Your task to perform on an android device: Find coffee shops on Maps Image 0: 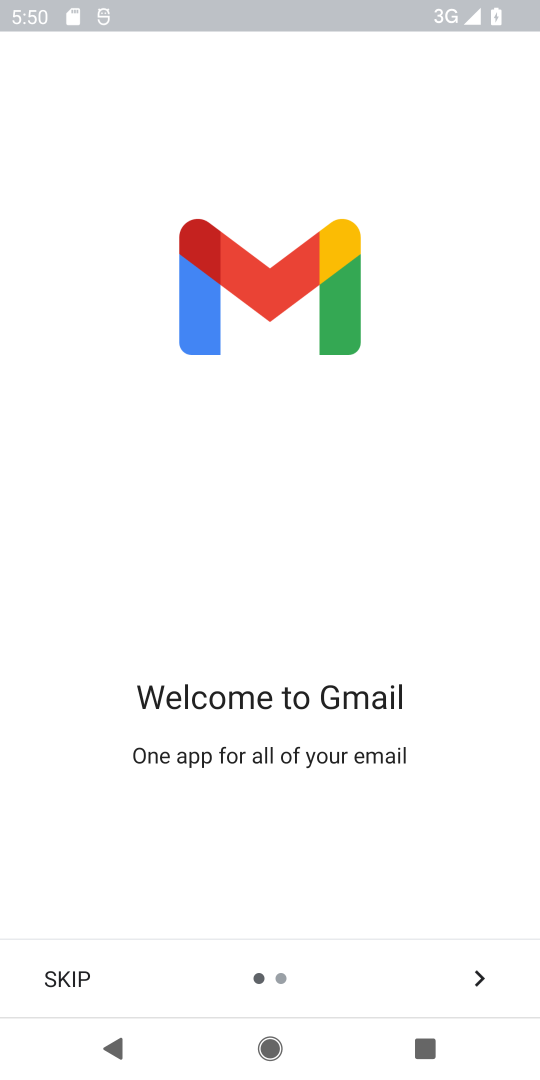
Step 0: press home button
Your task to perform on an android device: Find coffee shops on Maps Image 1: 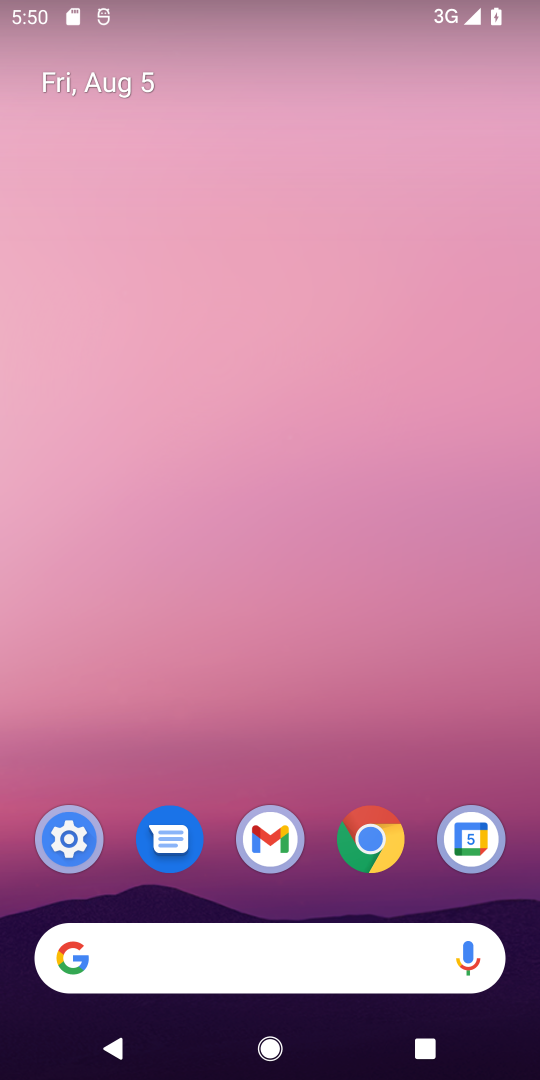
Step 1: drag from (263, 735) to (267, 202)
Your task to perform on an android device: Find coffee shops on Maps Image 2: 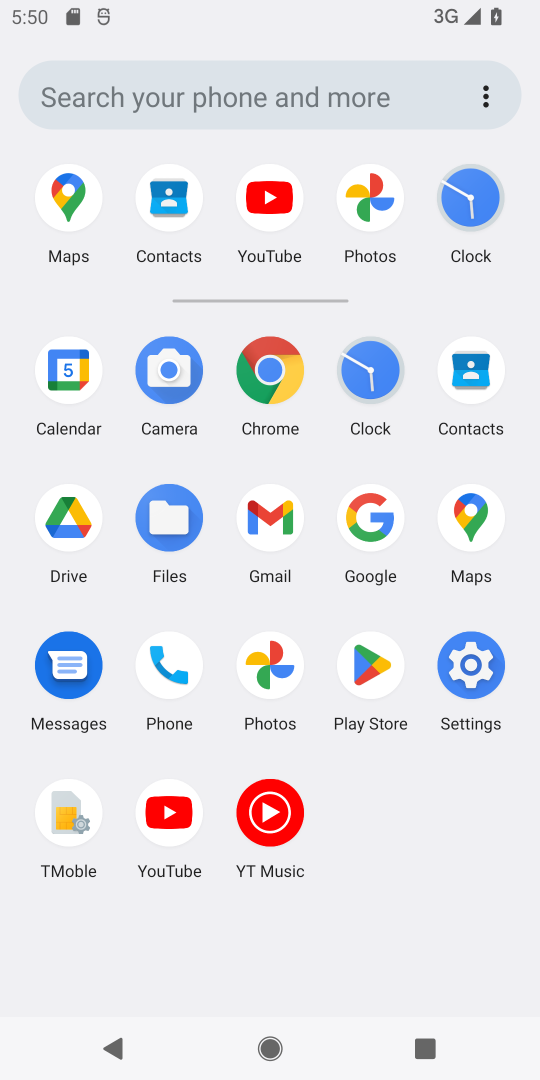
Step 2: click (457, 544)
Your task to perform on an android device: Find coffee shops on Maps Image 3: 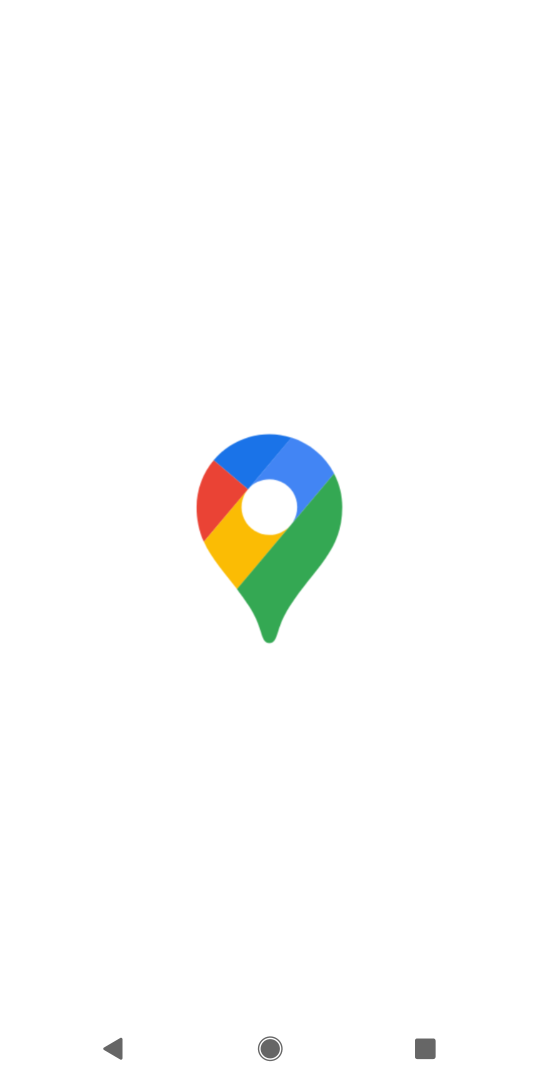
Step 3: task complete